Your task to perform on an android device: Open the phone app and click the voicemail tab. Image 0: 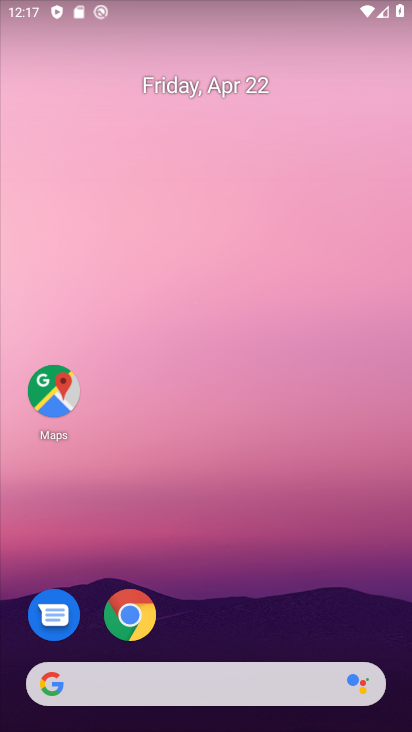
Step 0: drag from (252, 723) to (217, 148)
Your task to perform on an android device: Open the phone app and click the voicemail tab. Image 1: 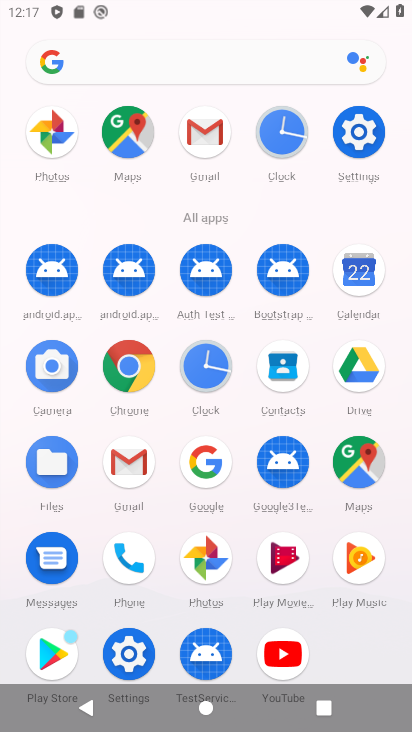
Step 1: click (136, 565)
Your task to perform on an android device: Open the phone app and click the voicemail tab. Image 2: 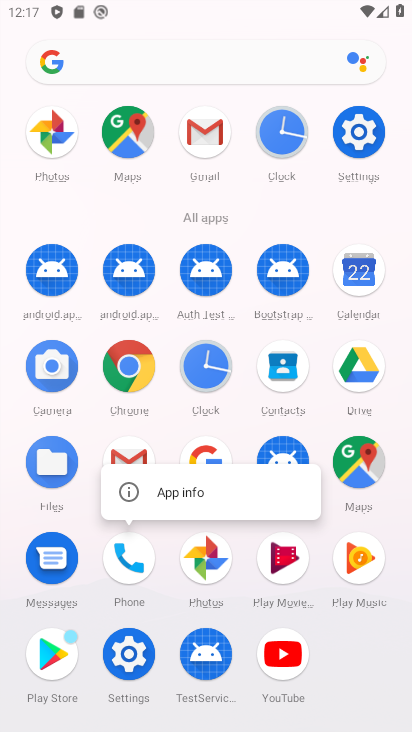
Step 2: click (136, 565)
Your task to perform on an android device: Open the phone app and click the voicemail tab. Image 3: 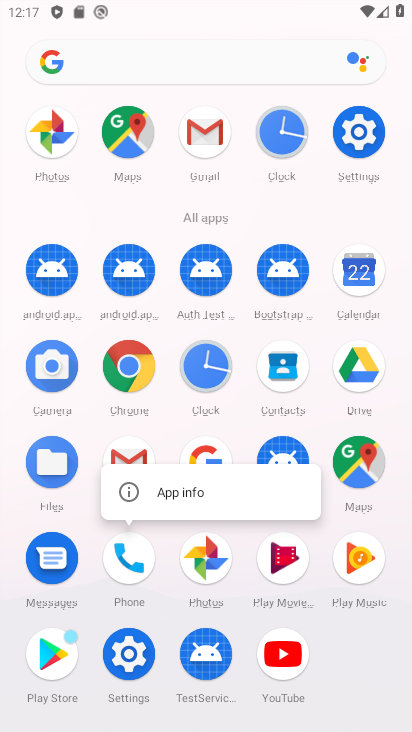
Step 3: click (136, 565)
Your task to perform on an android device: Open the phone app and click the voicemail tab. Image 4: 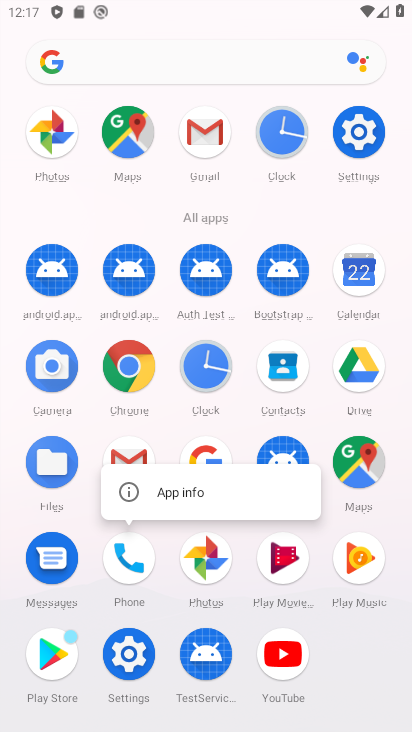
Step 4: click (136, 565)
Your task to perform on an android device: Open the phone app and click the voicemail tab. Image 5: 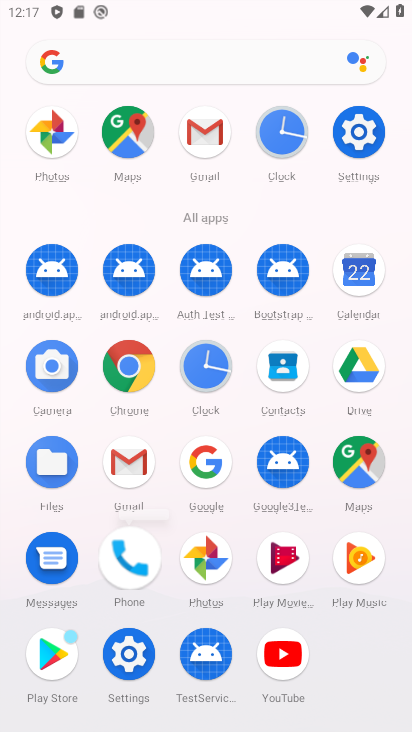
Step 5: click (136, 565)
Your task to perform on an android device: Open the phone app and click the voicemail tab. Image 6: 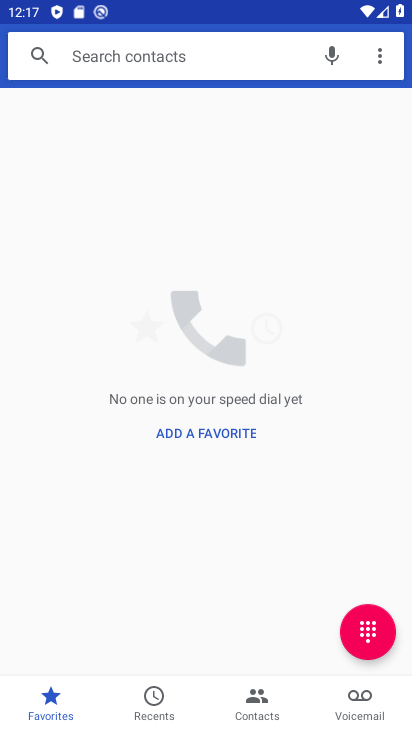
Step 6: click (351, 692)
Your task to perform on an android device: Open the phone app and click the voicemail tab. Image 7: 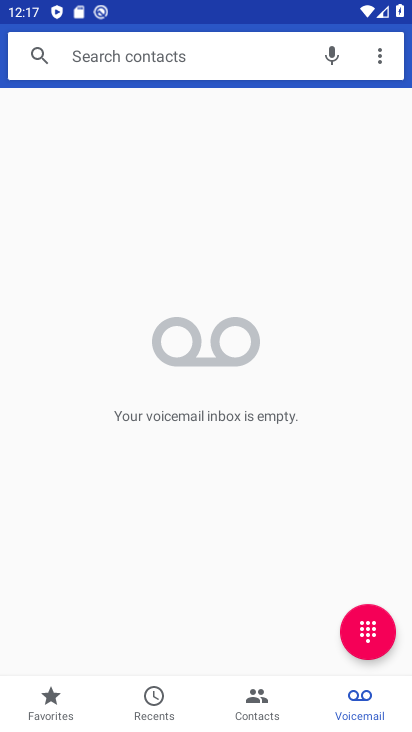
Step 7: task complete